Your task to perform on an android device: turn off sleep mode Image 0: 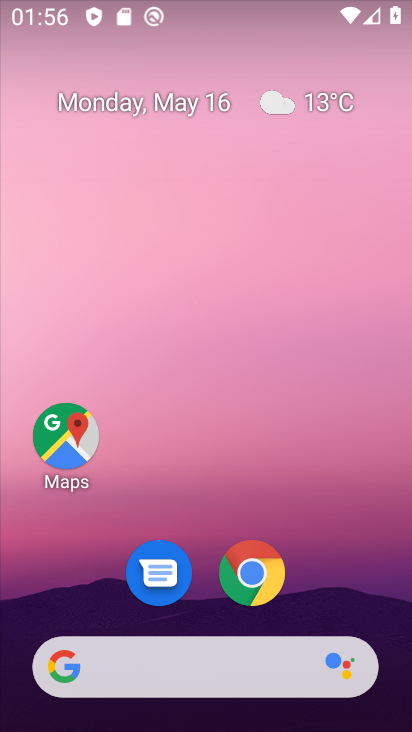
Step 0: drag from (199, 629) to (406, 236)
Your task to perform on an android device: turn off sleep mode Image 1: 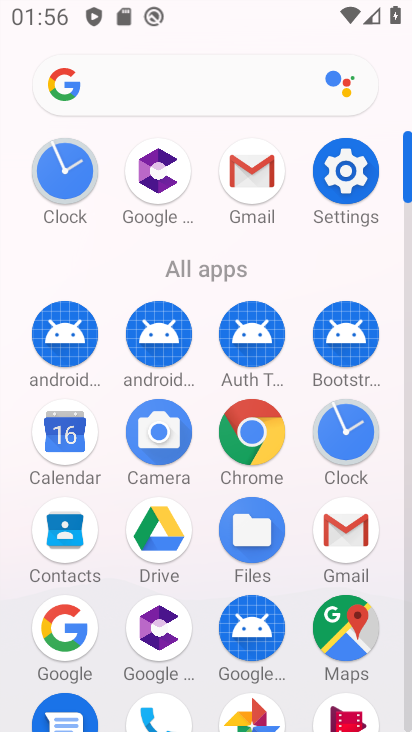
Step 1: click (350, 165)
Your task to perform on an android device: turn off sleep mode Image 2: 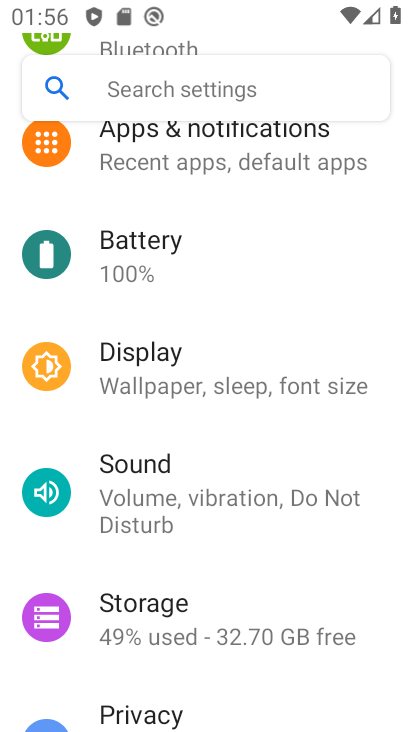
Step 2: task complete